Your task to perform on an android device: What's on my calendar tomorrow? Image 0: 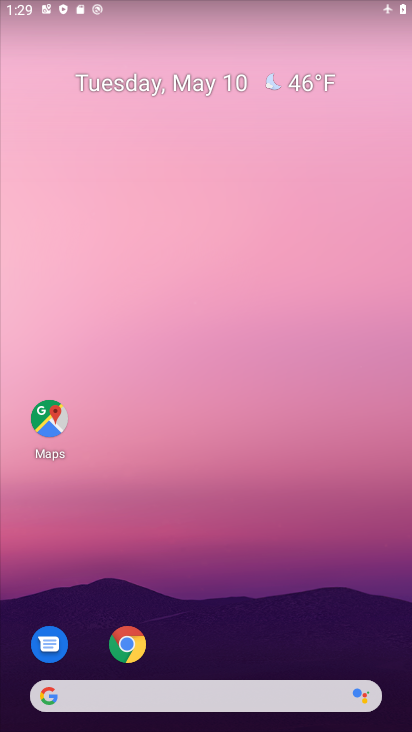
Step 0: drag from (265, 417) to (266, 225)
Your task to perform on an android device: What's on my calendar tomorrow? Image 1: 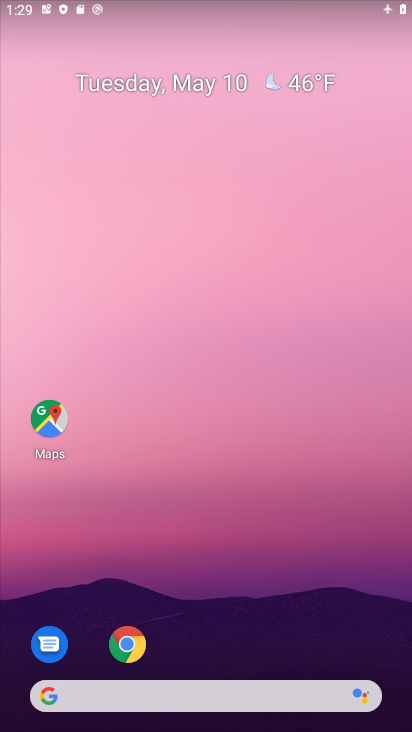
Step 1: drag from (206, 631) to (281, 113)
Your task to perform on an android device: What's on my calendar tomorrow? Image 2: 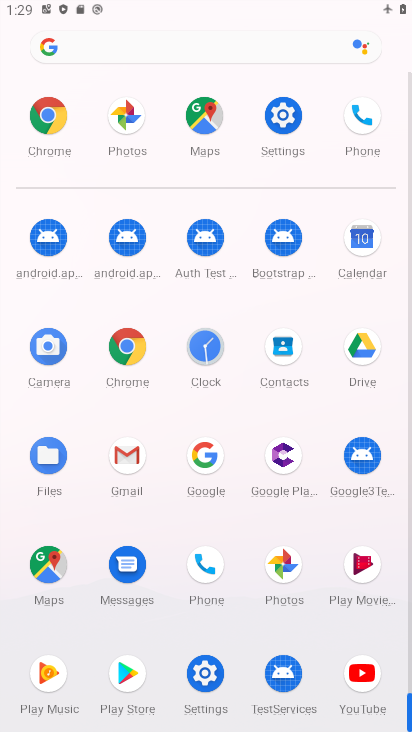
Step 2: click (367, 247)
Your task to perform on an android device: What's on my calendar tomorrow? Image 3: 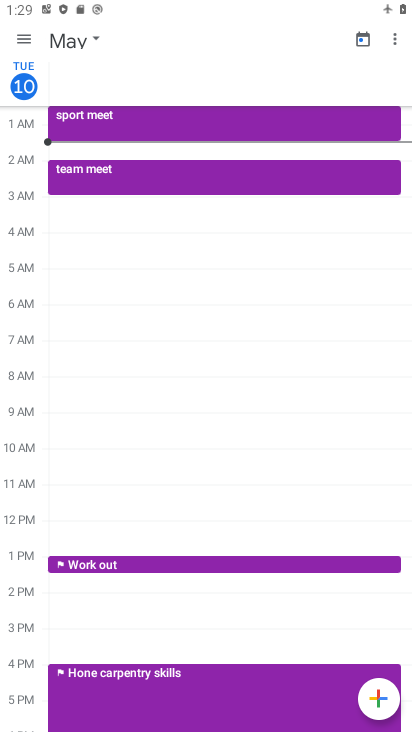
Step 3: click (88, 49)
Your task to perform on an android device: What's on my calendar tomorrow? Image 4: 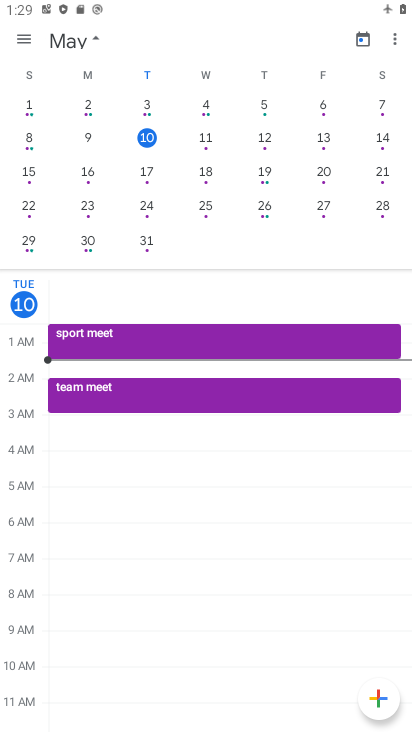
Step 4: click (213, 146)
Your task to perform on an android device: What's on my calendar tomorrow? Image 5: 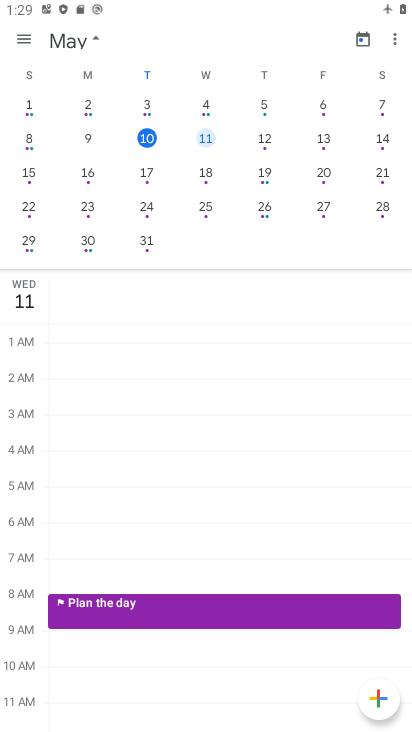
Step 5: click (96, 42)
Your task to perform on an android device: What's on my calendar tomorrow? Image 6: 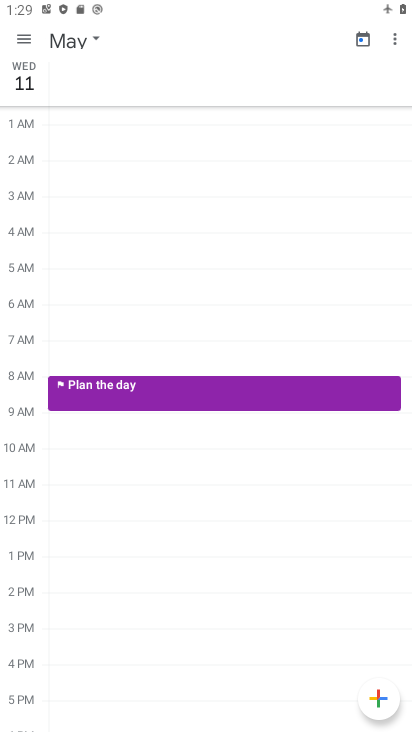
Step 6: task complete